Your task to perform on an android device: What's the weather going to be this weekend? Image 0: 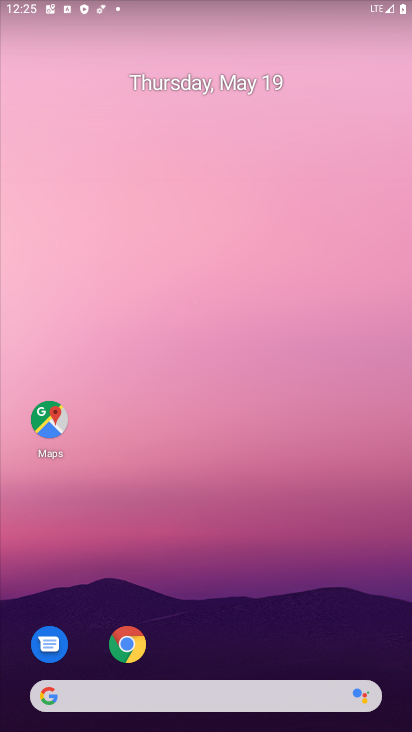
Step 0: drag from (260, 559) to (243, 19)
Your task to perform on an android device: What's the weather going to be this weekend? Image 1: 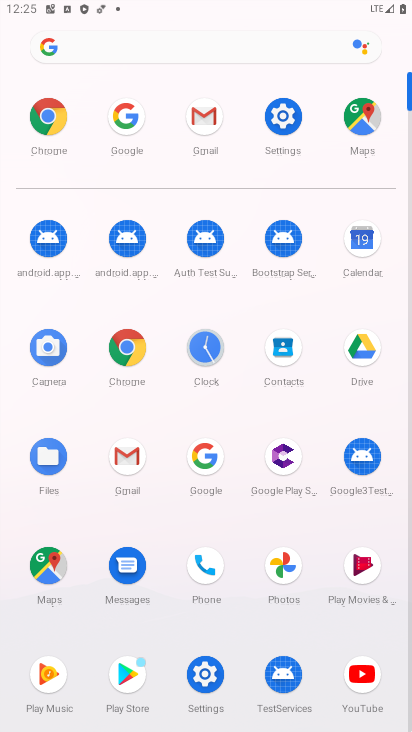
Step 1: click (195, 463)
Your task to perform on an android device: What's the weather going to be this weekend? Image 2: 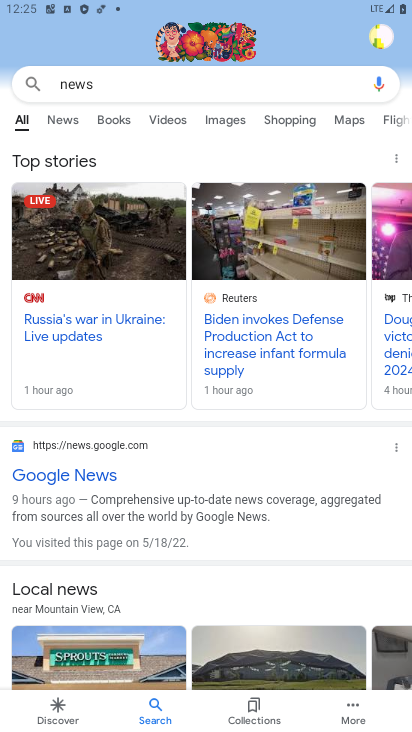
Step 2: press back button
Your task to perform on an android device: What's the weather going to be this weekend? Image 3: 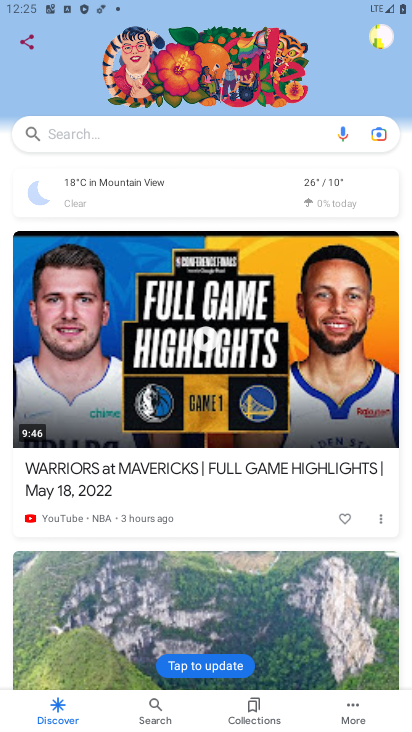
Step 3: click (140, 120)
Your task to perform on an android device: What's the weather going to be this weekend? Image 4: 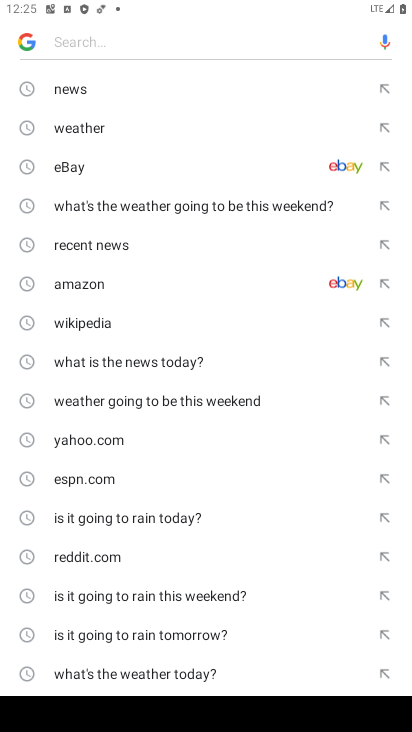
Step 4: click (178, 218)
Your task to perform on an android device: What's the weather going to be this weekend? Image 5: 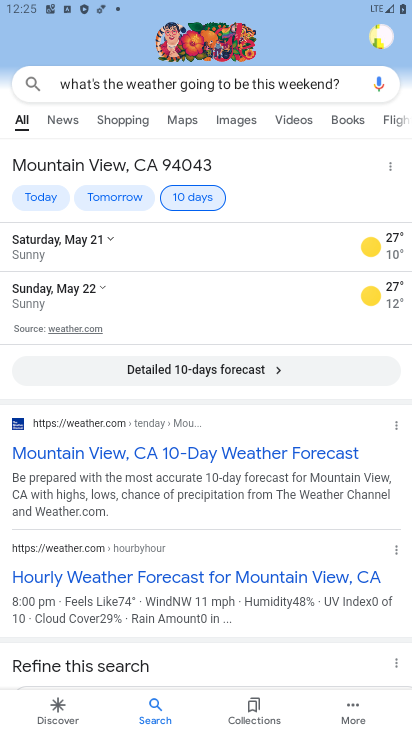
Step 5: task complete